Your task to perform on an android device: open app "Instagram" Image 0: 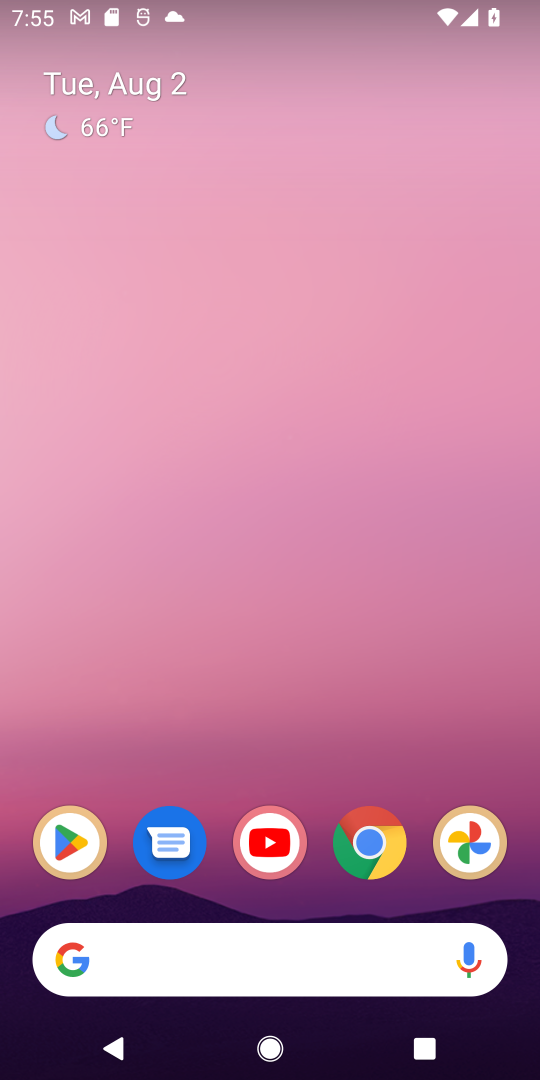
Step 0: click (113, 849)
Your task to perform on an android device: open app "Instagram" Image 1: 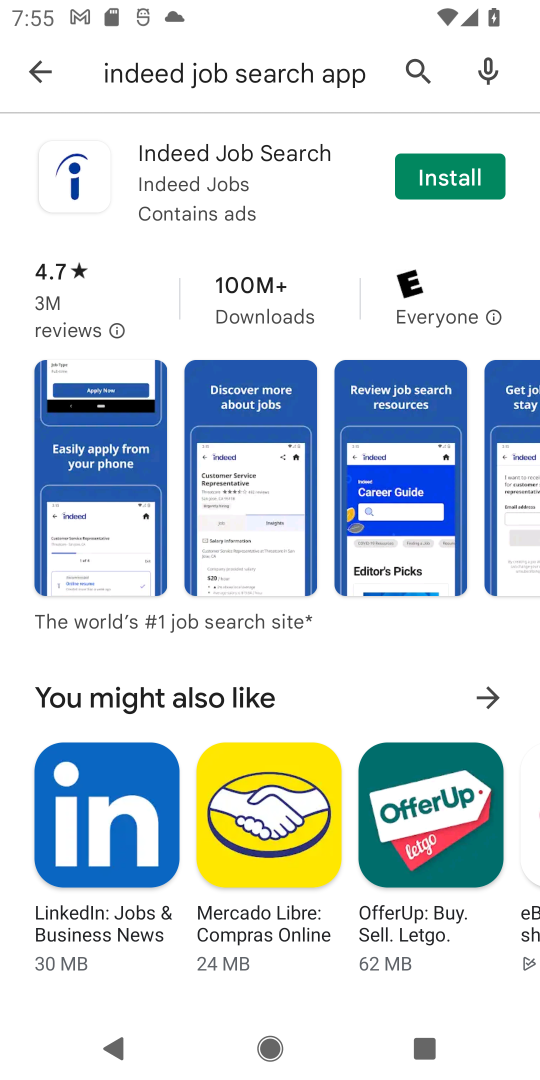
Step 1: click (236, 66)
Your task to perform on an android device: open app "Instagram" Image 2: 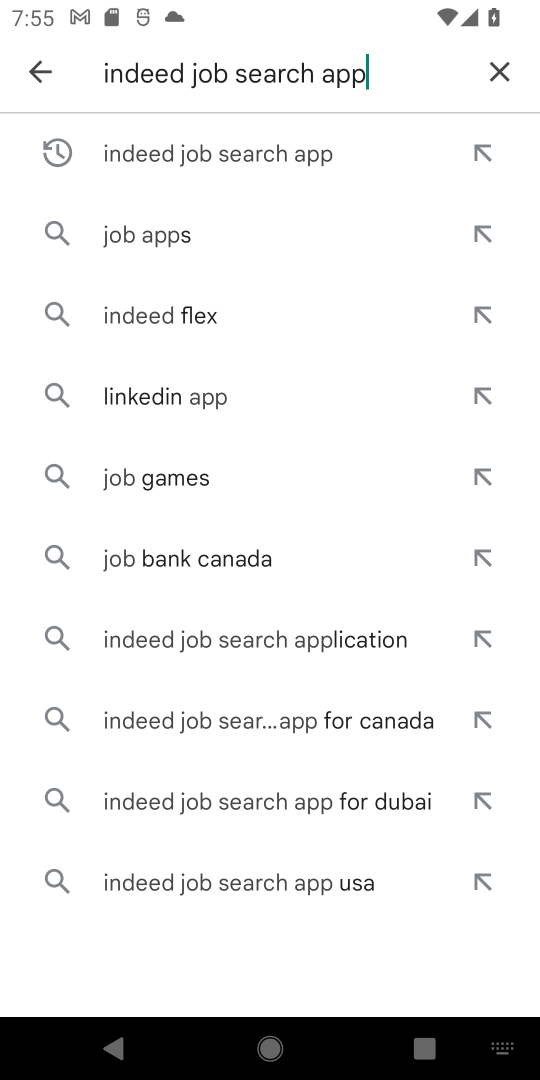
Step 2: click (516, 65)
Your task to perform on an android device: open app "Instagram" Image 3: 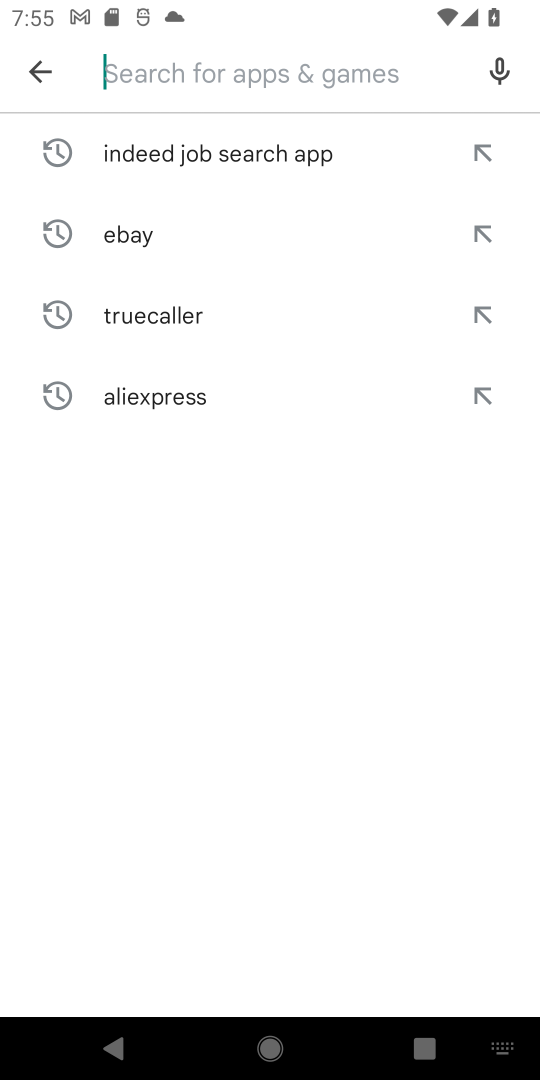
Step 3: type "instagram"
Your task to perform on an android device: open app "Instagram" Image 4: 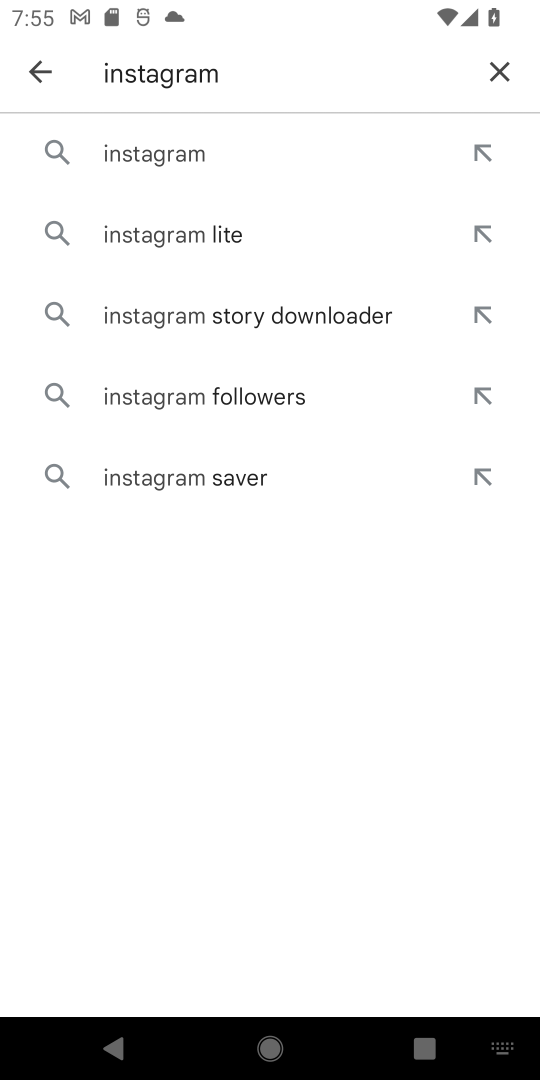
Step 4: click (202, 135)
Your task to perform on an android device: open app "Instagram" Image 5: 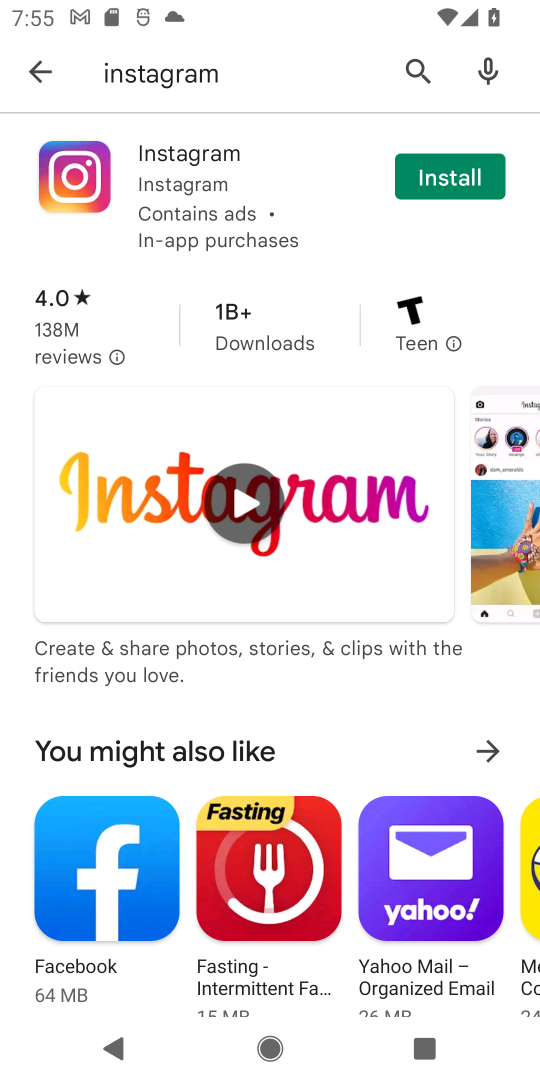
Step 5: task complete